Your task to perform on an android device: Open the stopwatch Image 0: 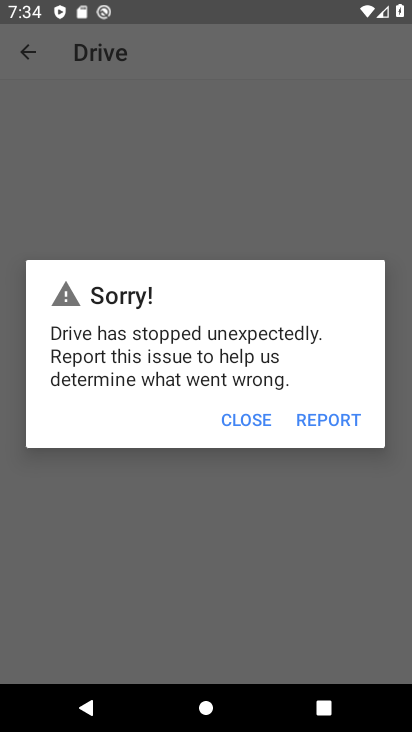
Step 0: click (345, 441)
Your task to perform on an android device: Open the stopwatch Image 1: 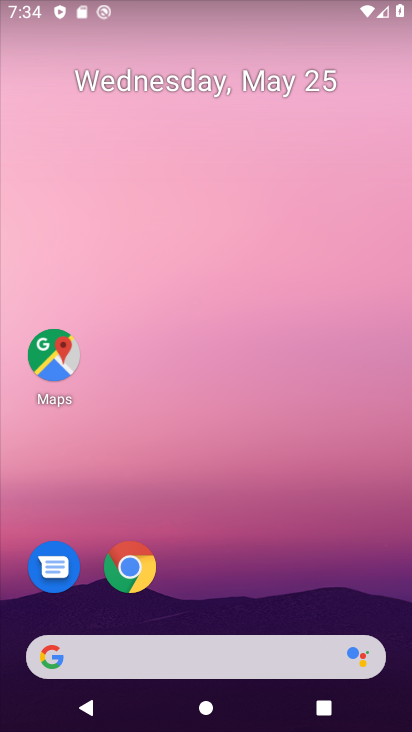
Step 1: drag from (240, 601) to (264, 64)
Your task to perform on an android device: Open the stopwatch Image 2: 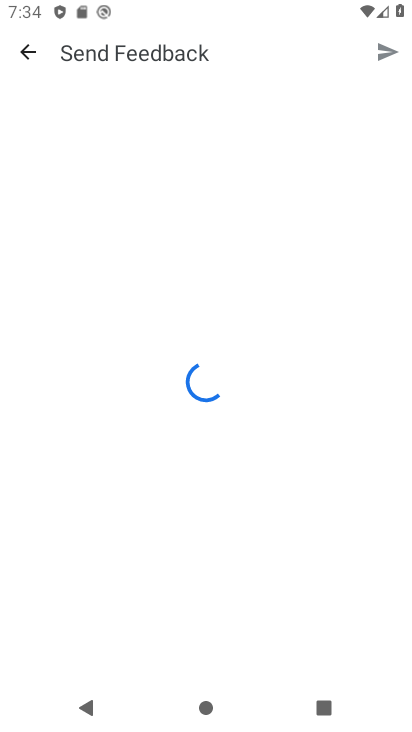
Step 2: press home button
Your task to perform on an android device: Open the stopwatch Image 3: 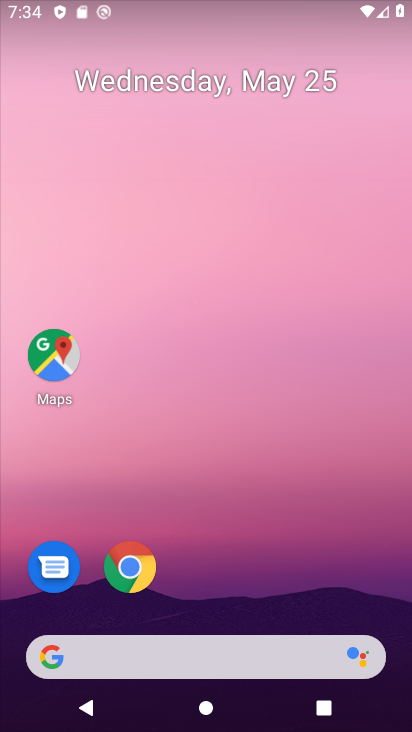
Step 3: drag from (285, 612) to (303, 102)
Your task to perform on an android device: Open the stopwatch Image 4: 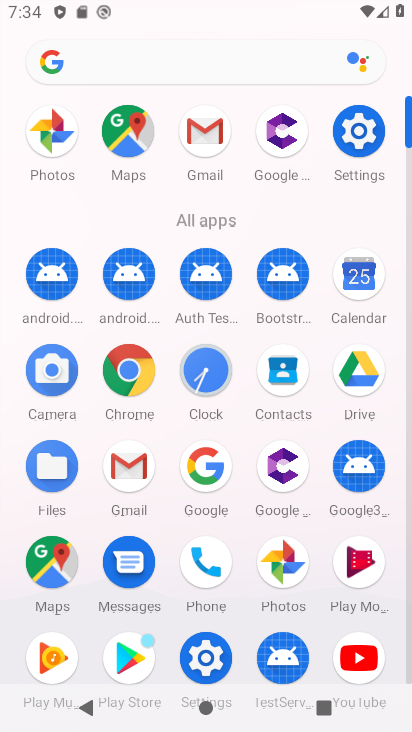
Step 4: click (213, 366)
Your task to perform on an android device: Open the stopwatch Image 5: 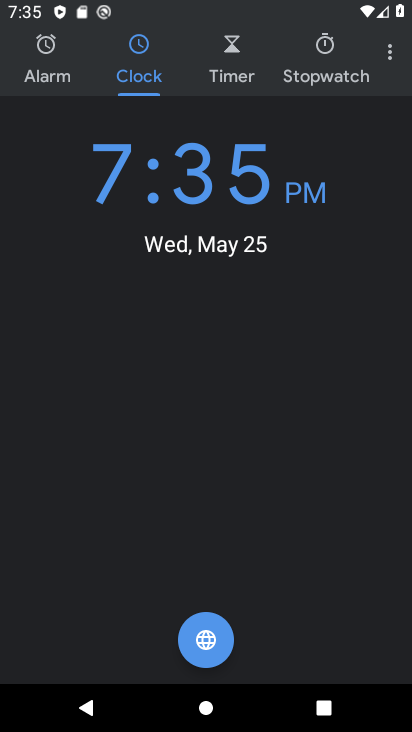
Step 5: click (327, 40)
Your task to perform on an android device: Open the stopwatch Image 6: 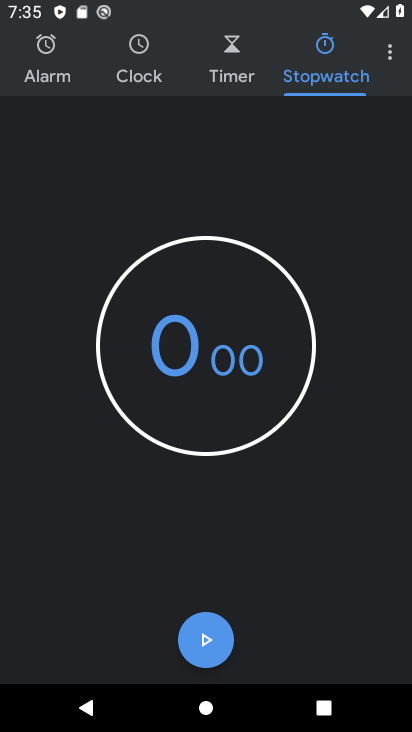
Step 6: task complete